Your task to perform on an android device: Show the shopping cart on bestbuy. Add panasonic triple a to the cart on bestbuy Image 0: 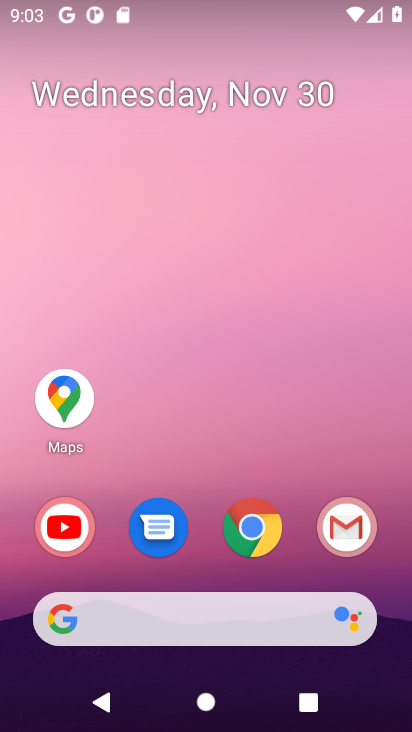
Step 0: click (261, 523)
Your task to perform on an android device: Show the shopping cart on bestbuy. Add panasonic triple a to the cart on bestbuy Image 1: 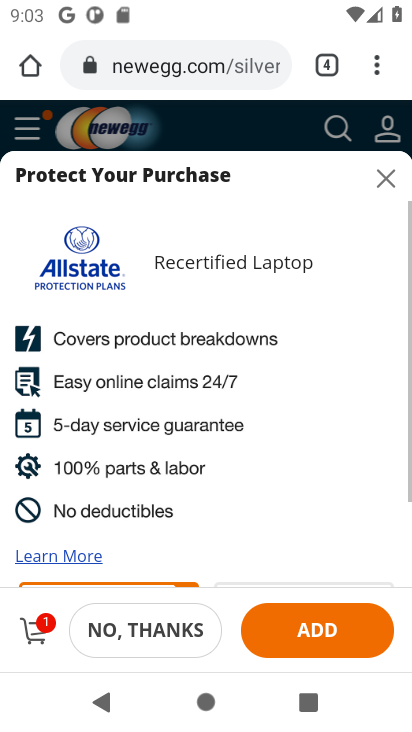
Step 1: click (204, 62)
Your task to perform on an android device: Show the shopping cart on bestbuy. Add panasonic triple a to the cart on bestbuy Image 2: 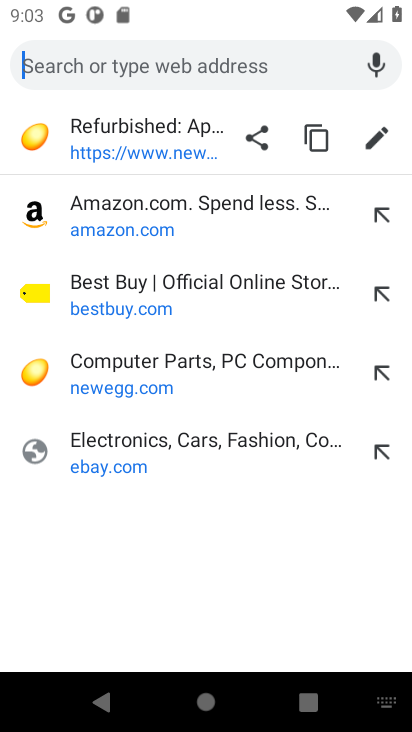
Step 2: type "bestbuy"
Your task to perform on an android device: Show the shopping cart on bestbuy. Add panasonic triple a to the cart on bestbuy Image 3: 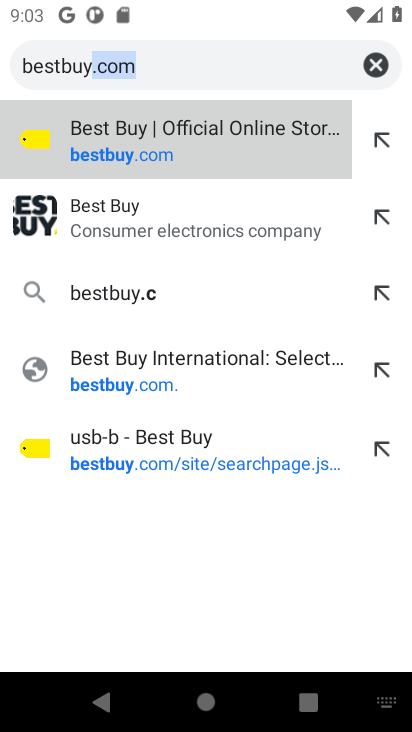
Step 3: click (240, 62)
Your task to perform on an android device: Show the shopping cart on bestbuy. Add panasonic triple a to the cart on bestbuy Image 4: 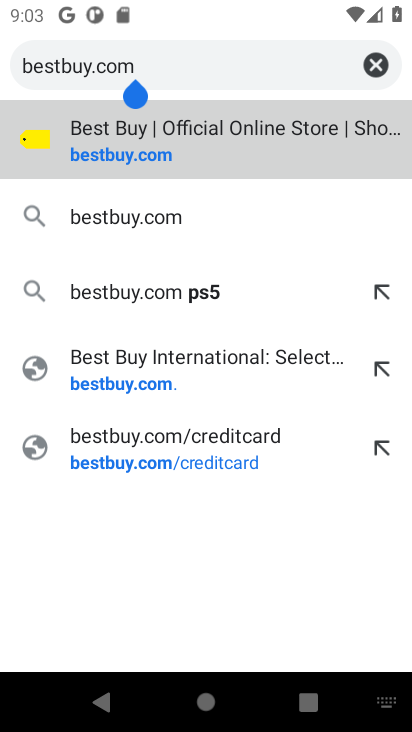
Step 4: click (171, 214)
Your task to perform on an android device: Show the shopping cart on bestbuy. Add panasonic triple a to the cart on bestbuy Image 5: 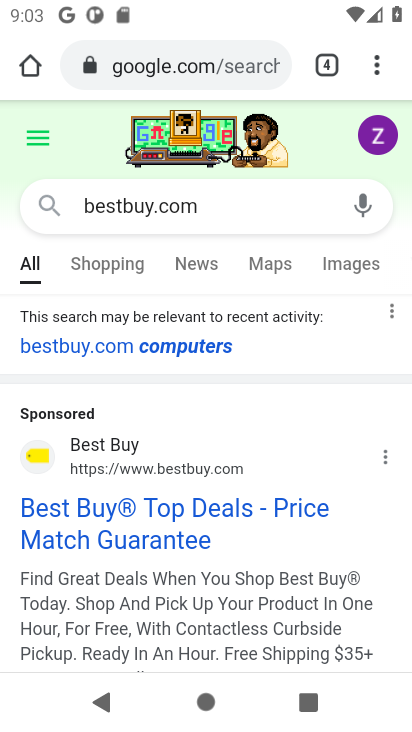
Step 5: click (169, 466)
Your task to perform on an android device: Show the shopping cart on bestbuy. Add panasonic triple a to the cart on bestbuy Image 6: 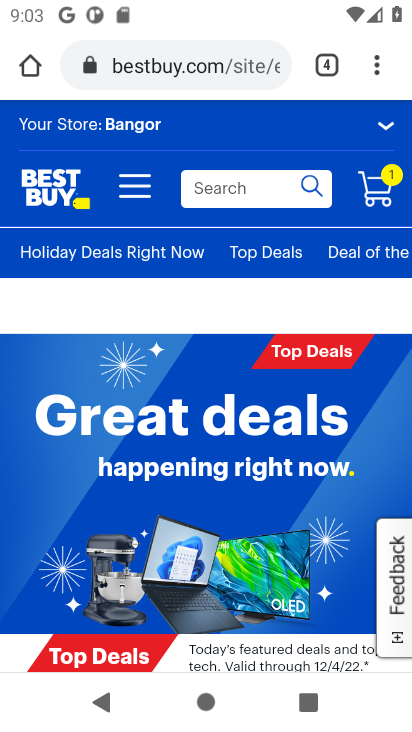
Step 6: click (247, 188)
Your task to perform on an android device: Show the shopping cart on bestbuy. Add panasonic triple a to the cart on bestbuy Image 7: 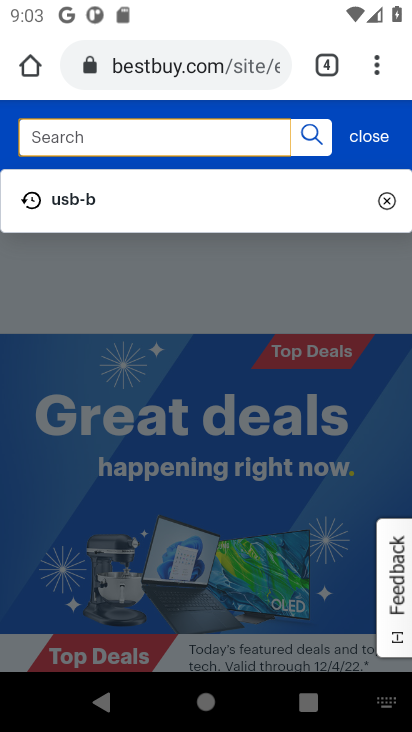
Step 7: type "panasonic triple a "
Your task to perform on an android device: Show the shopping cart on bestbuy. Add panasonic triple a to the cart on bestbuy Image 8: 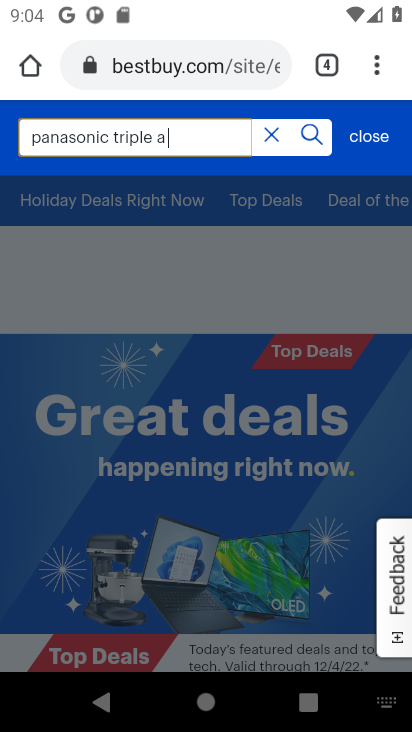
Step 8: click (314, 133)
Your task to perform on an android device: Show the shopping cart on bestbuy. Add panasonic triple a to the cart on bestbuy Image 9: 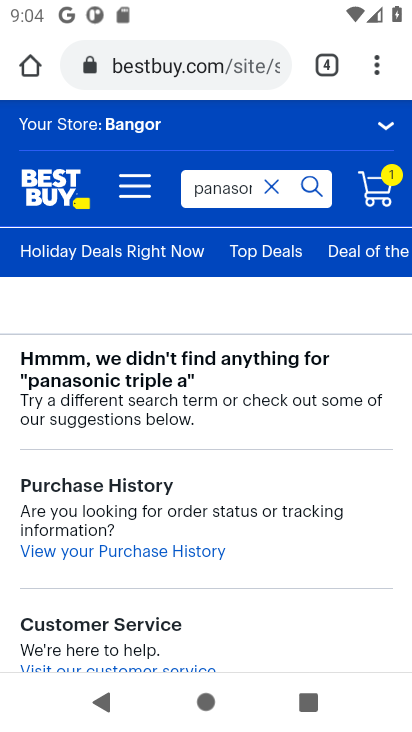
Step 9: task complete